Your task to perform on an android device: Go to calendar. Show me events next week Image 0: 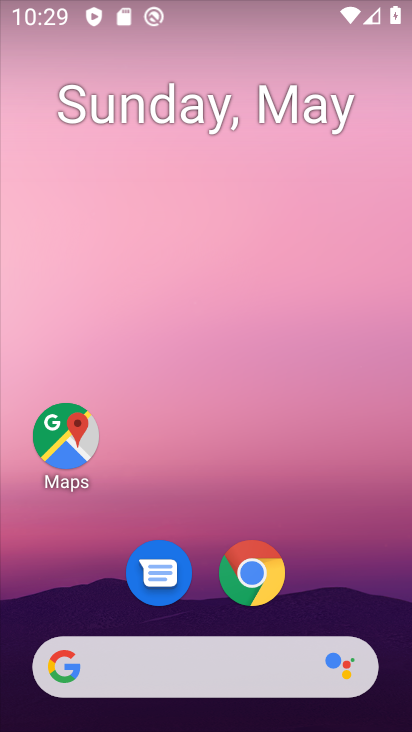
Step 0: drag from (347, 619) to (300, 215)
Your task to perform on an android device: Go to calendar. Show me events next week Image 1: 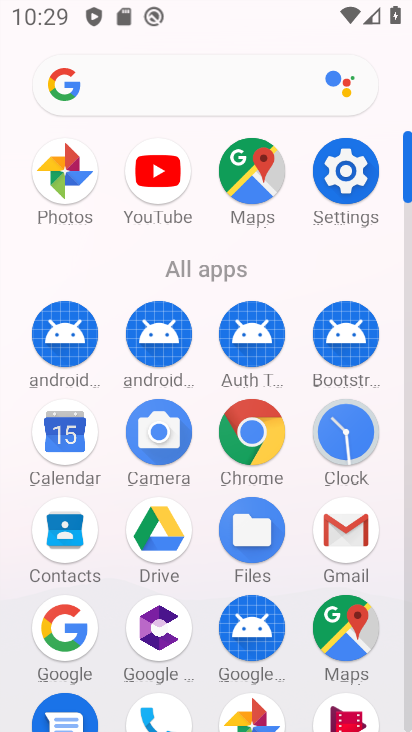
Step 1: click (41, 445)
Your task to perform on an android device: Go to calendar. Show me events next week Image 2: 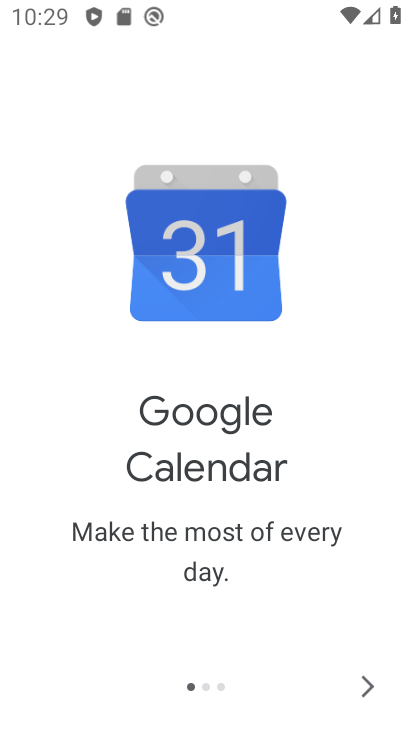
Step 2: click (364, 694)
Your task to perform on an android device: Go to calendar. Show me events next week Image 3: 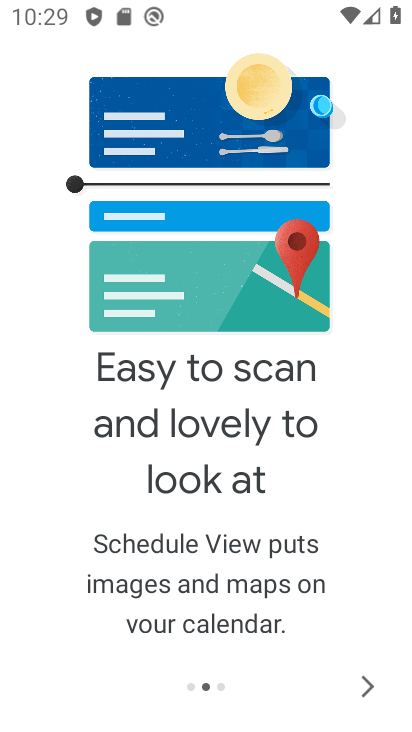
Step 3: click (366, 694)
Your task to perform on an android device: Go to calendar. Show me events next week Image 4: 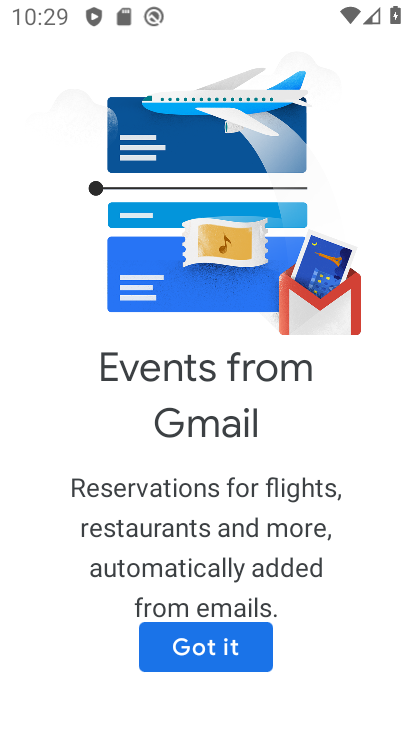
Step 4: click (238, 653)
Your task to perform on an android device: Go to calendar. Show me events next week Image 5: 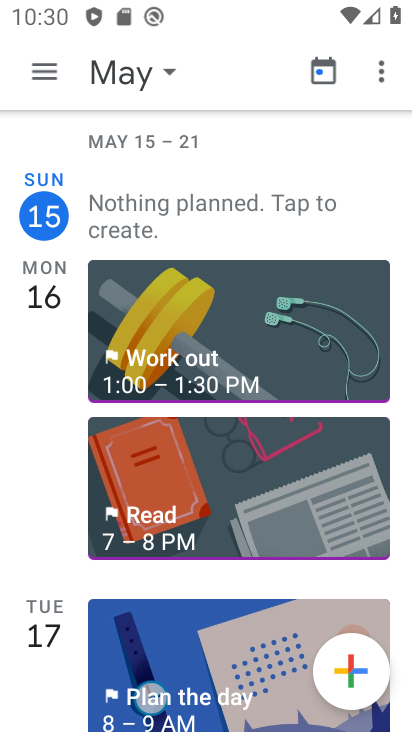
Step 5: click (47, 72)
Your task to perform on an android device: Go to calendar. Show me events next week Image 6: 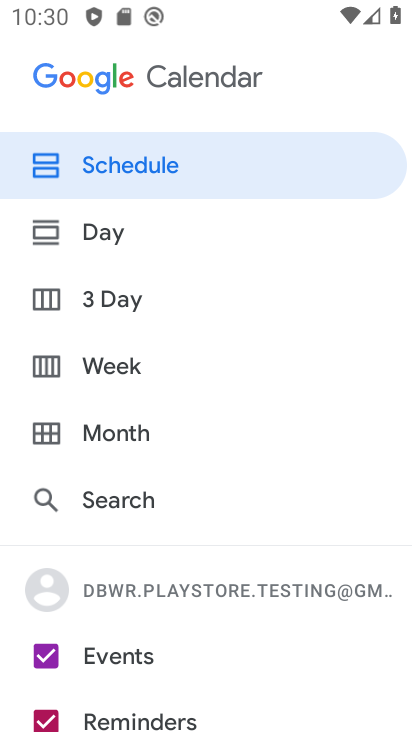
Step 6: click (45, 712)
Your task to perform on an android device: Go to calendar. Show me events next week Image 7: 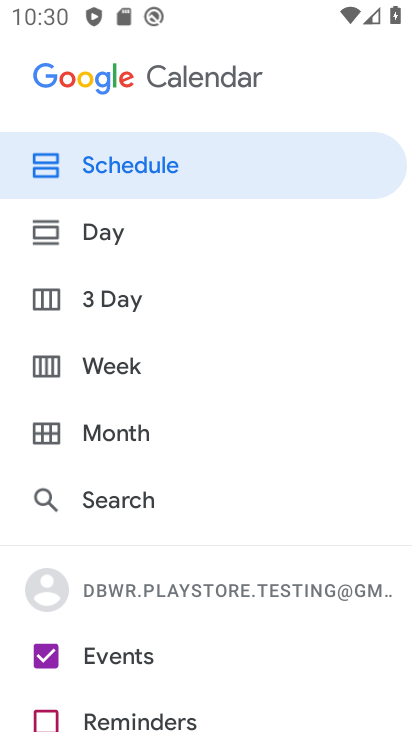
Step 7: drag from (209, 686) to (189, 239)
Your task to perform on an android device: Go to calendar. Show me events next week Image 8: 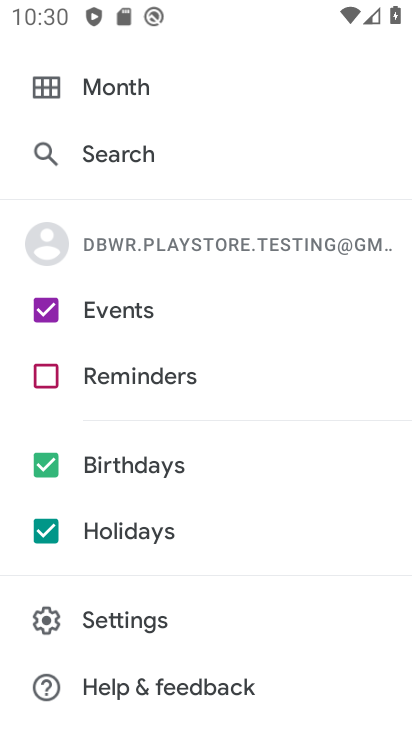
Step 8: click (43, 465)
Your task to perform on an android device: Go to calendar. Show me events next week Image 9: 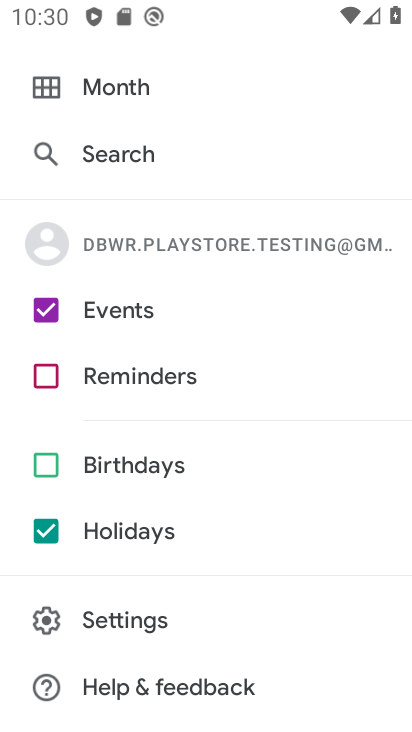
Step 9: click (49, 526)
Your task to perform on an android device: Go to calendar. Show me events next week Image 10: 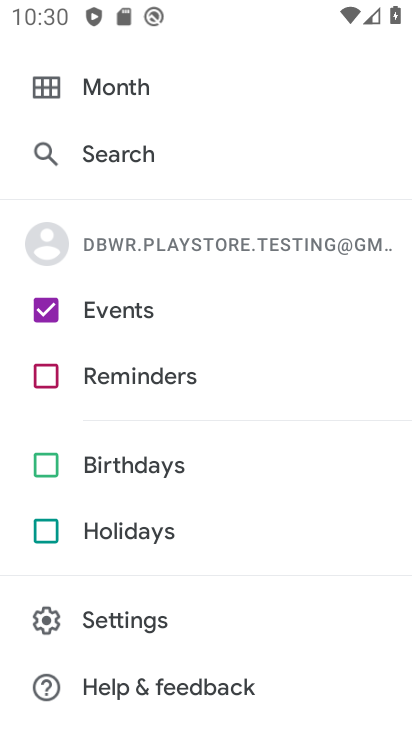
Step 10: drag from (214, 175) to (229, 633)
Your task to perform on an android device: Go to calendar. Show me events next week Image 11: 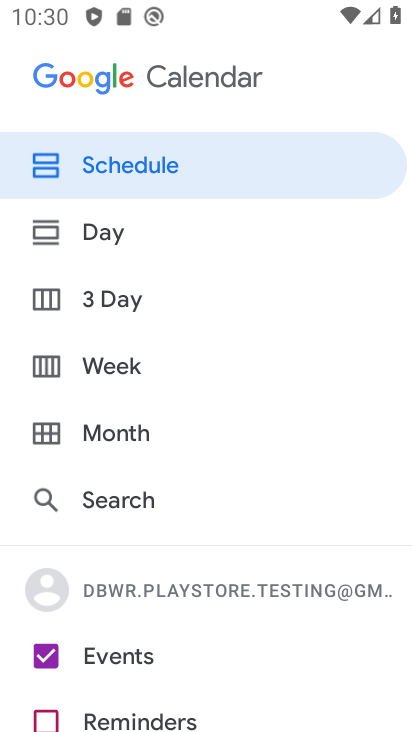
Step 11: click (152, 357)
Your task to perform on an android device: Go to calendar. Show me events next week Image 12: 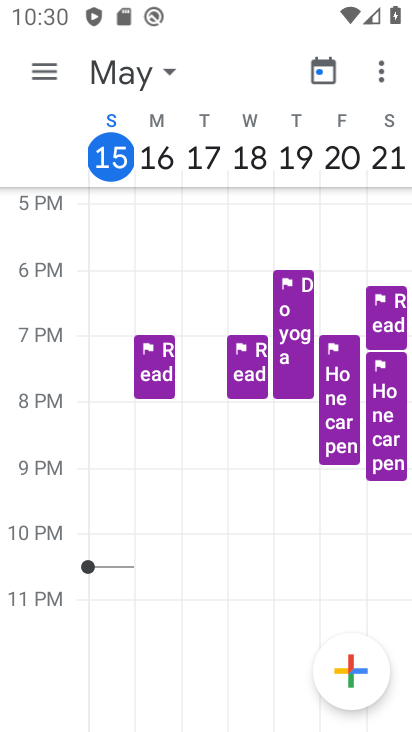
Step 12: click (172, 72)
Your task to perform on an android device: Go to calendar. Show me events next week Image 13: 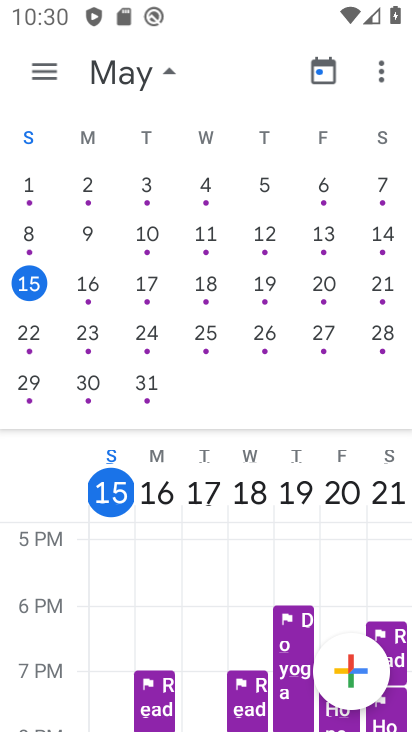
Step 13: click (87, 326)
Your task to perform on an android device: Go to calendar. Show me events next week Image 14: 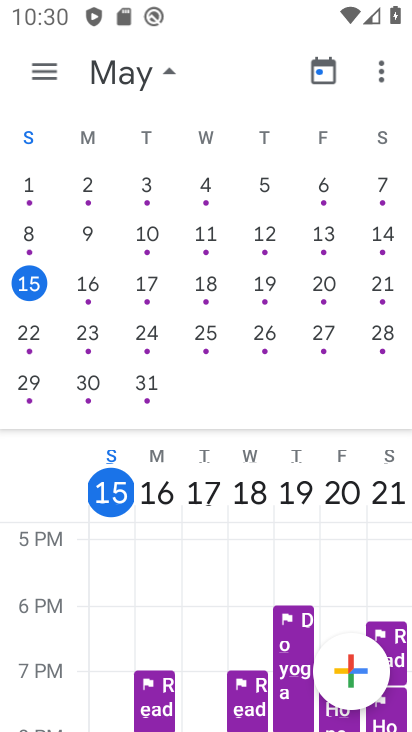
Step 14: click (87, 326)
Your task to perform on an android device: Go to calendar. Show me events next week Image 15: 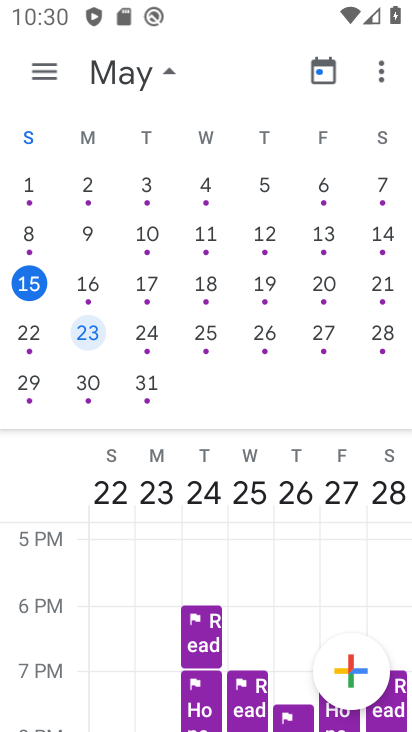
Step 15: click (168, 74)
Your task to perform on an android device: Go to calendar. Show me events next week Image 16: 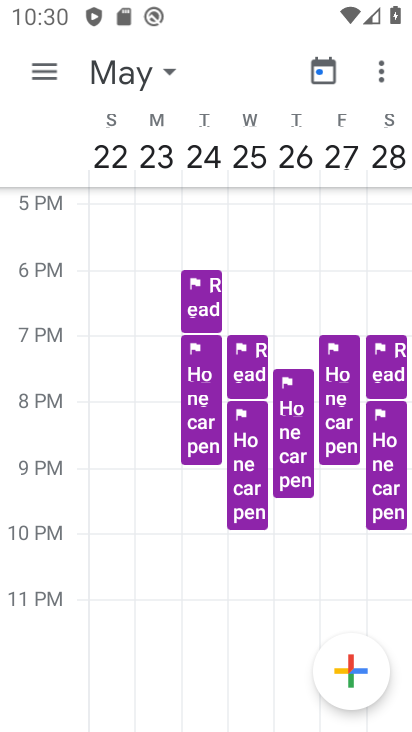
Step 16: task complete